Your task to perform on an android device: snooze an email in the gmail app Image 0: 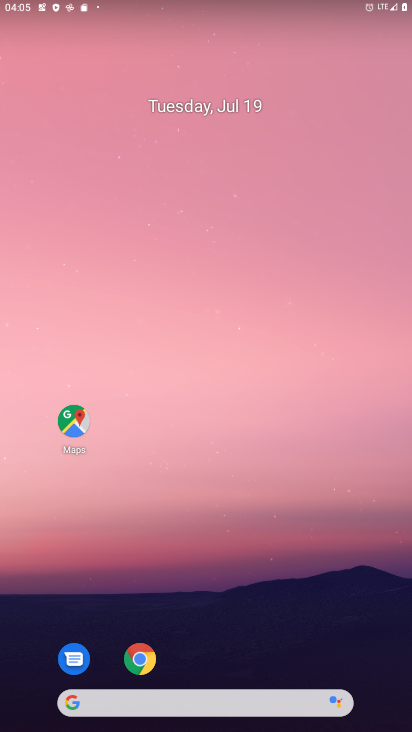
Step 0: press home button
Your task to perform on an android device: snooze an email in the gmail app Image 1: 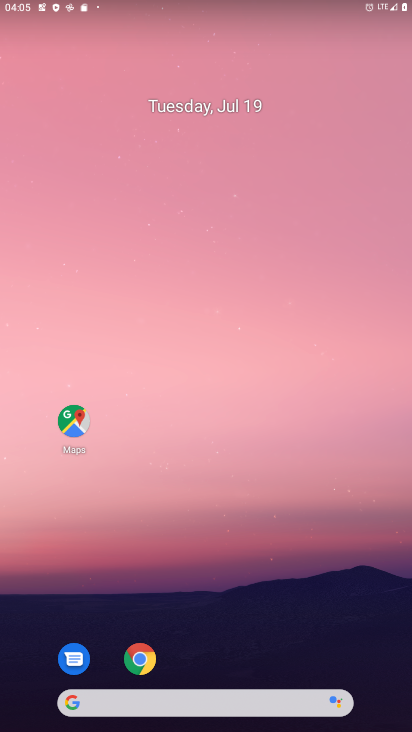
Step 1: drag from (271, 655) to (9, 127)
Your task to perform on an android device: snooze an email in the gmail app Image 2: 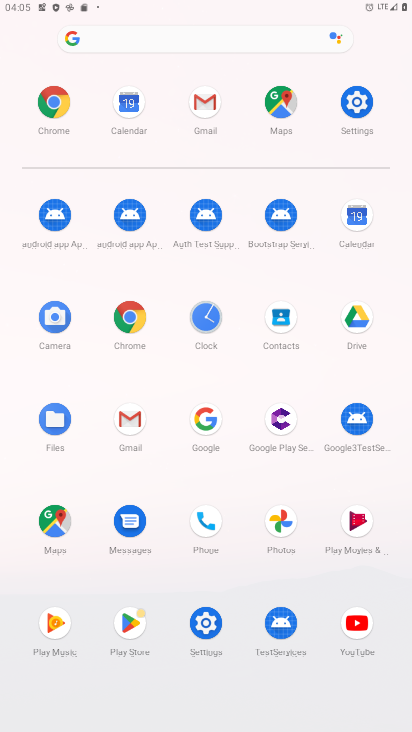
Step 2: click (218, 107)
Your task to perform on an android device: snooze an email in the gmail app Image 3: 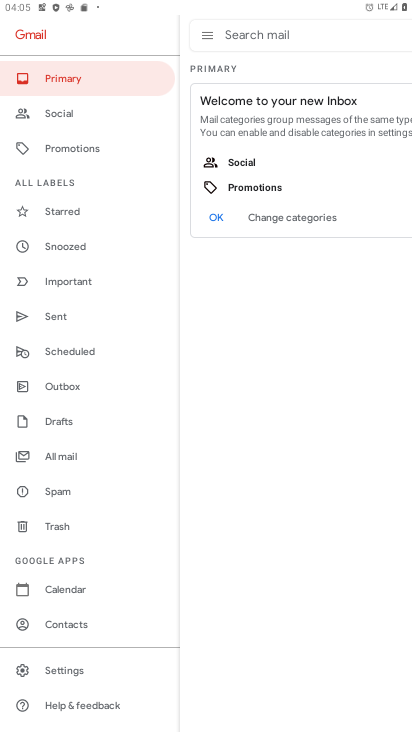
Step 3: task complete